Your task to perform on an android device: See recent photos Image 0: 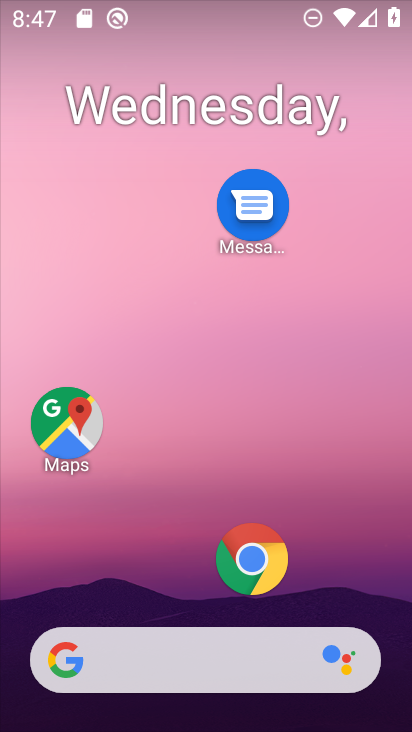
Step 0: drag from (96, 706) to (176, 244)
Your task to perform on an android device: See recent photos Image 1: 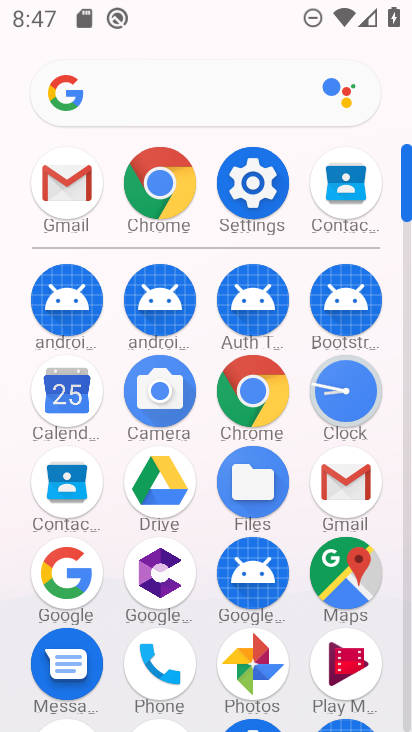
Step 1: drag from (142, 486) to (185, 300)
Your task to perform on an android device: See recent photos Image 2: 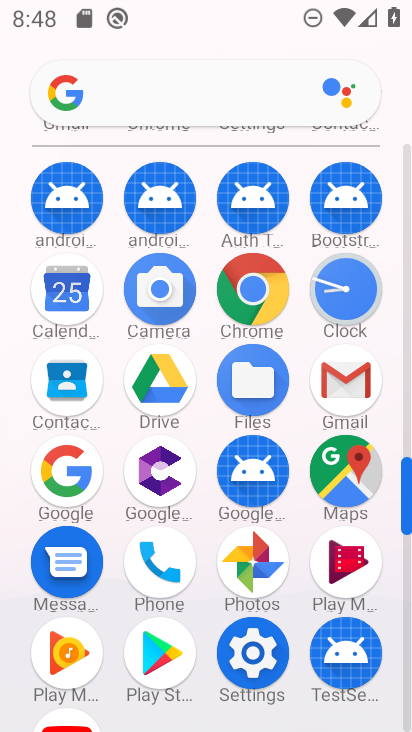
Step 2: click (256, 556)
Your task to perform on an android device: See recent photos Image 3: 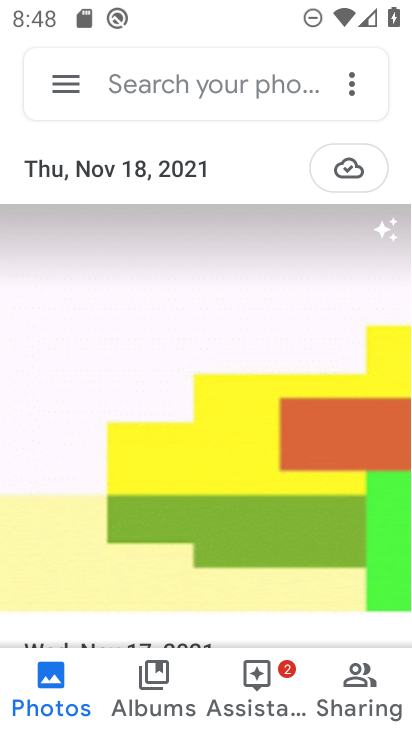
Step 3: task complete